Your task to perform on an android device: Go to battery settings Image 0: 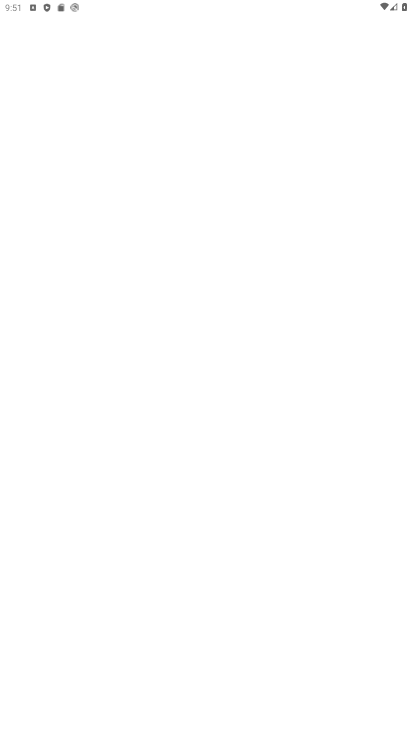
Step 0: drag from (31, 711) to (225, 18)
Your task to perform on an android device: Go to battery settings Image 1: 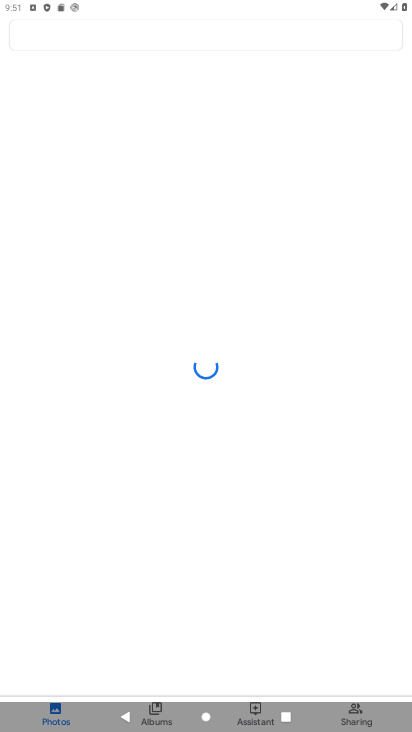
Step 1: press home button
Your task to perform on an android device: Go to battery settings Image 2: 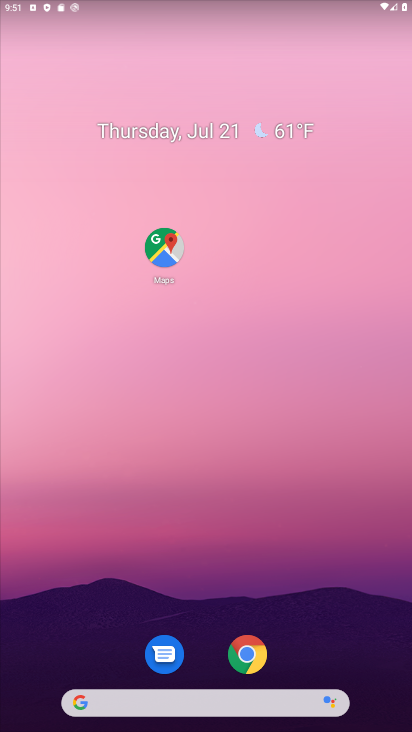
Step 2: drag from (14, 701) to (318, 2)
Your task to perform on an android device: Go to battery settings Image 3: 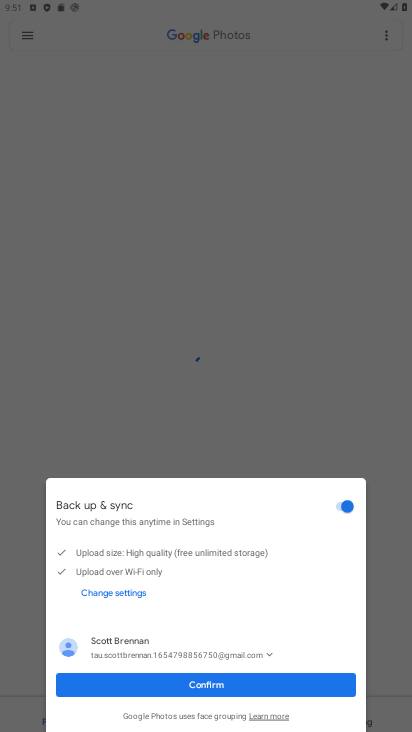
Step 3: press home button
Your task to perform on an android device: Go to battery settings Image 4: 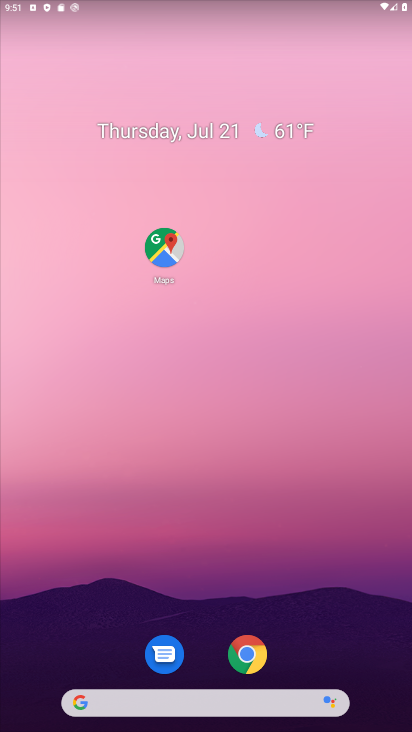
Step 4: drag from (30, 687) to (241, 13)
Your task to perform on an android device: Go to battery settings Image 5: 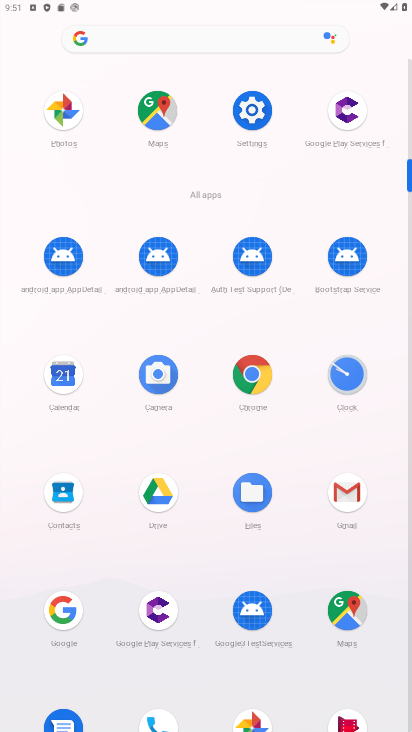
Step 5: click (256, 118)
Your task to perform on an android device: Go to battery settings Image 6: 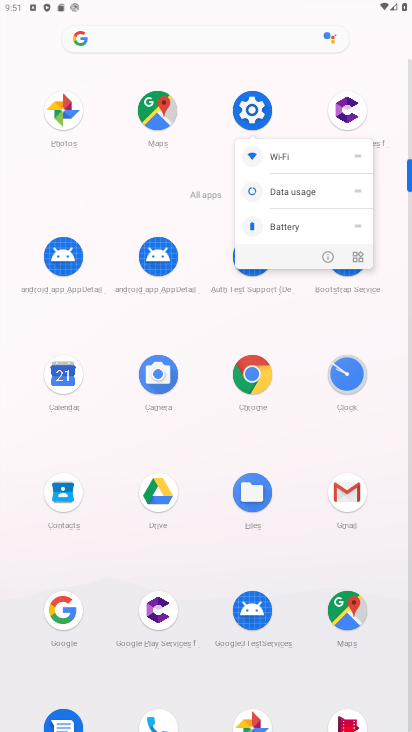
Step 6: click (242, 115)
Your task to perform on an android device: Go to battery settings Image 7: 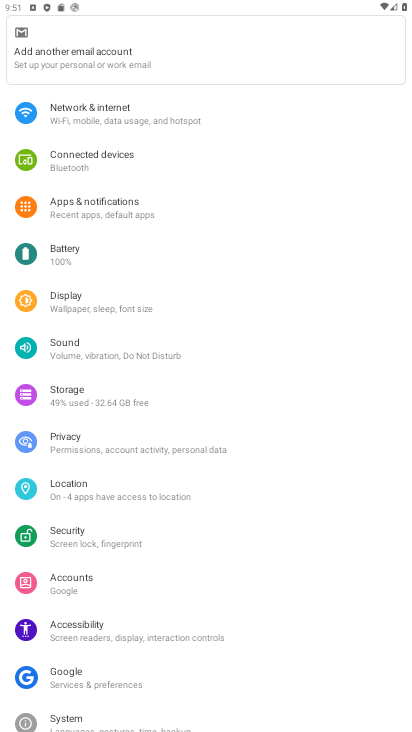
Step 7: click (62, 249)
Your task to perform on an android device: Go to battery settings Image 8: 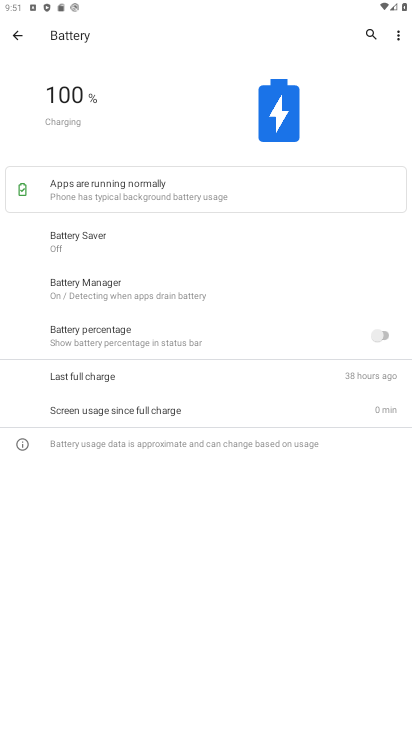
Step 8: task complete